Your task to perform on an android device: What is the recent news? Image 0: 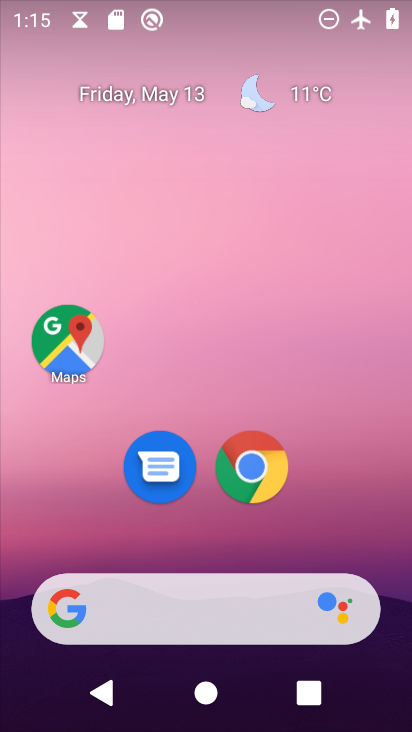
Step 0: drag from (289, 479) to (208, 95)
Your task to perform on an android device: What is the recent news? Image 1: 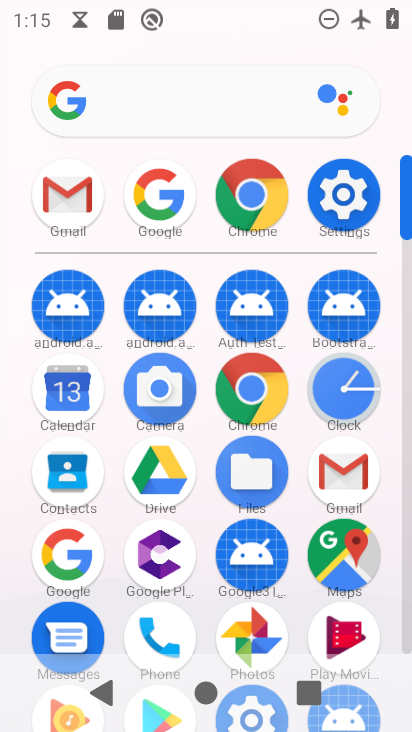
Step 1: click (85, 557)
Your task to perform on an android device: What is the recent news? Image 2: 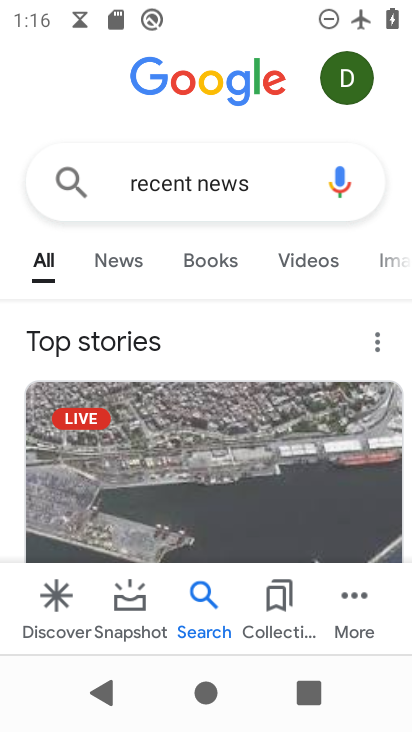
Step 2: task complete